Your task to perform on an android device: toggle pop-ups in chrome Image 0: 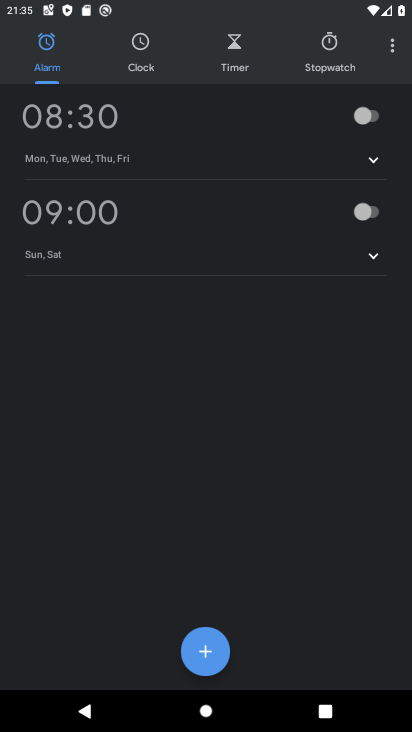
Step 0: press home button
Your task to perform on an android device: toggle pop-ups in chrome Image 1: 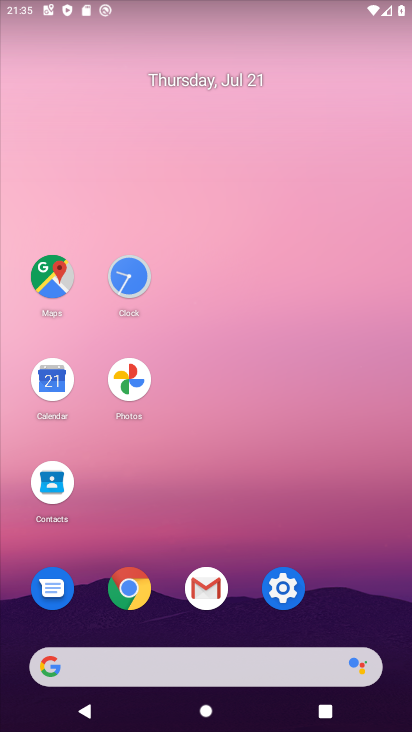
Step 1: click (130, 591)
Your task to perform on an android device: toggle pop-ups in chrome Image 2: 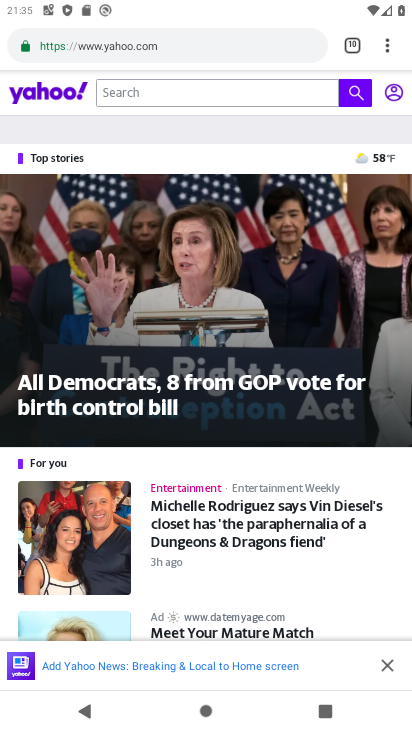
Step 2: click (387, 43)
Your task to perform on an android device: toggle pop-ups in chrome Image 3: 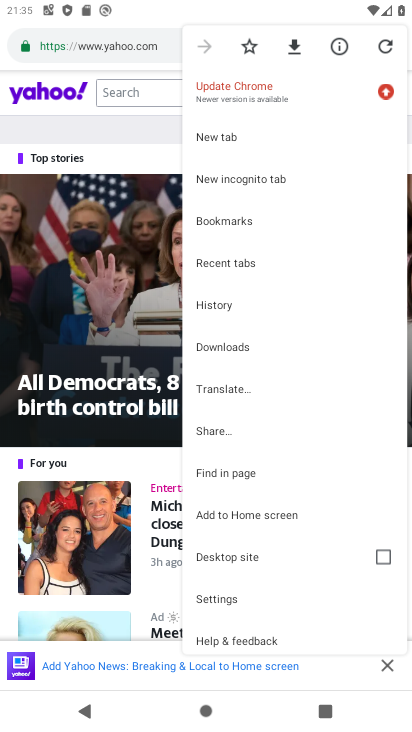
Step 3: click (219, 600)
Your task to perform on an android device: toggle pop-ups in chrome Image 4: 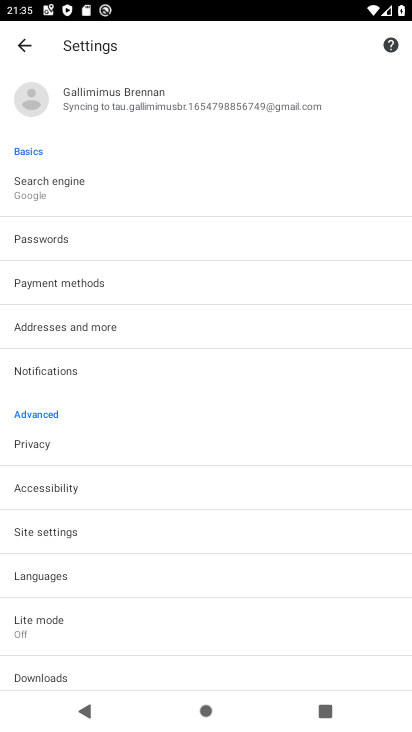
Step 4: click (52, 531)
Your task to perform on an android device: toggle pop-ups in chrome Image 5: 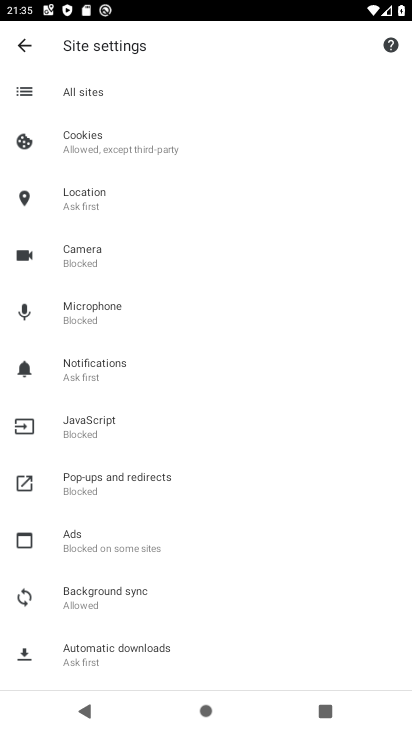
Step 5: click (100, 473)
Your task to perform on an android device: toggle pop-ups in chrome Image 6: 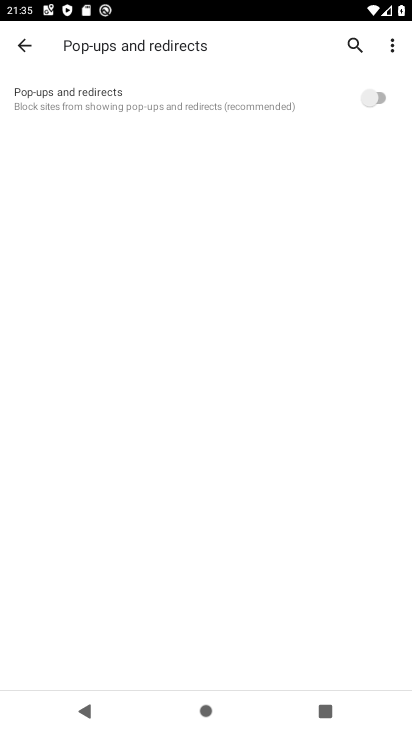
Step 6: click (364, 99)
Your task to perform on an android device: toggle pop-ups in chrome Image 7: 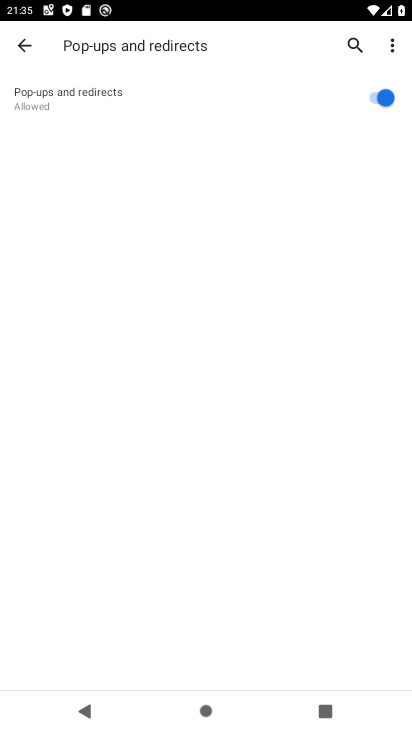
Step 7: task complete